Your task to perform on an android device: Check the news Image 0: 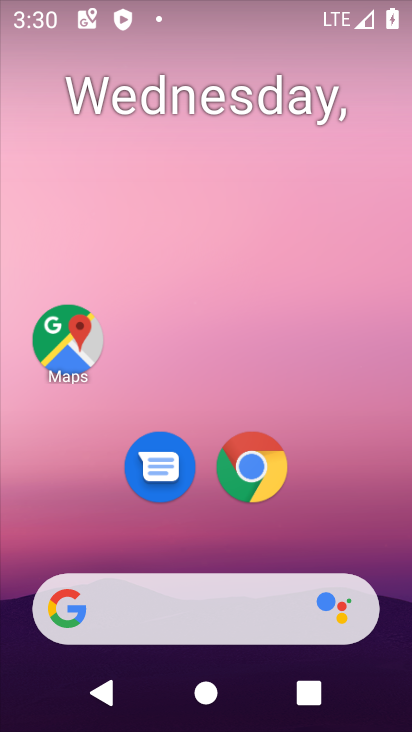
Step 0: drag from (10, 192) to (411, 307)
Your task to perform on an android device: Check the news Image 1: 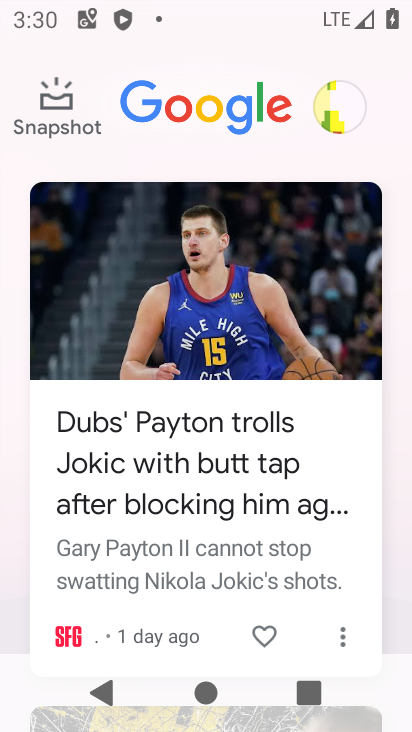
Step 1: task complete